Your task to perform on an android device: Go to privacy settings Image 0: 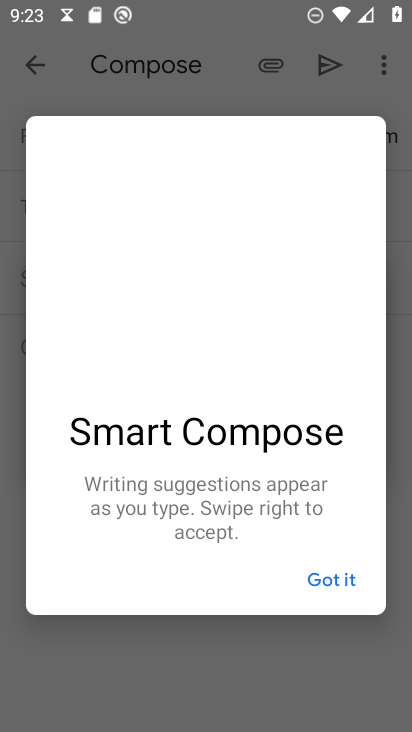
Step 0: press home button
Your task to perform on an android device: Go to privacy settings Image 1: 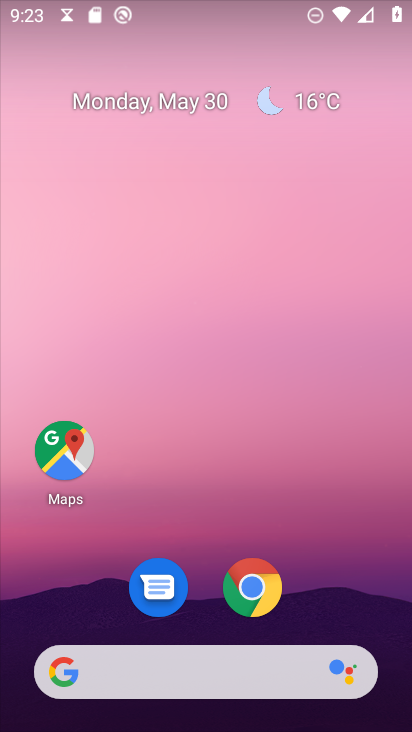
Step 1: drag from (215, 682) to (351, 105)
Your task to perform on an android device: Go to privacy settings Image 2: 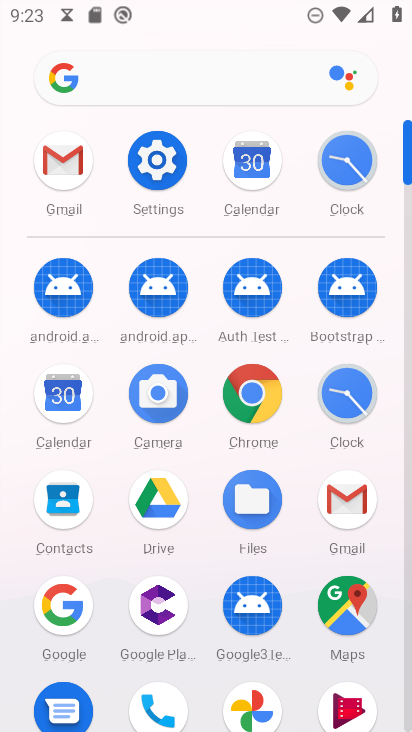
Step 2: click (157, 180)
Your task to perform on an android device: Go to privacy settings Image 3: 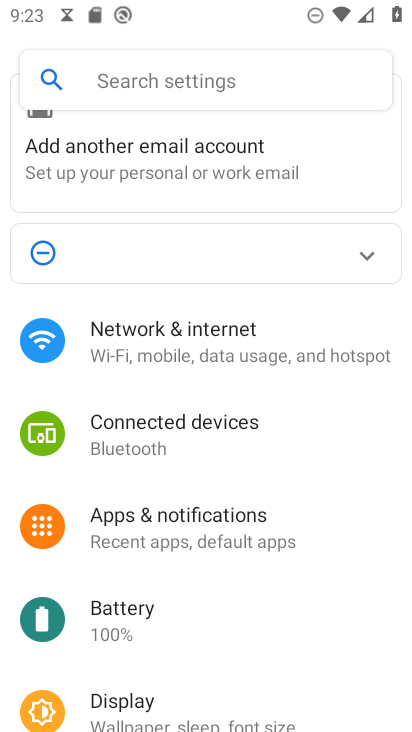
Step 3: drag from (367, 331) to (395, 251)
Your task to perform on an android device: Go to privacy settings Image 4: 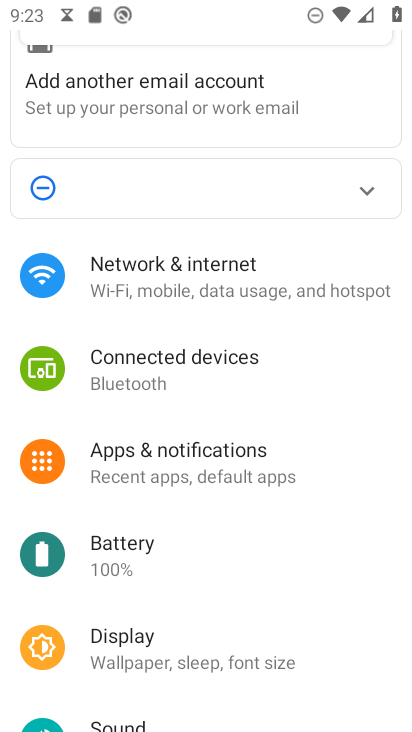
Step 4: drag from (195, 633) to (315, 122)
Your task to perform on an android device: Go to privacy settings Image 5: 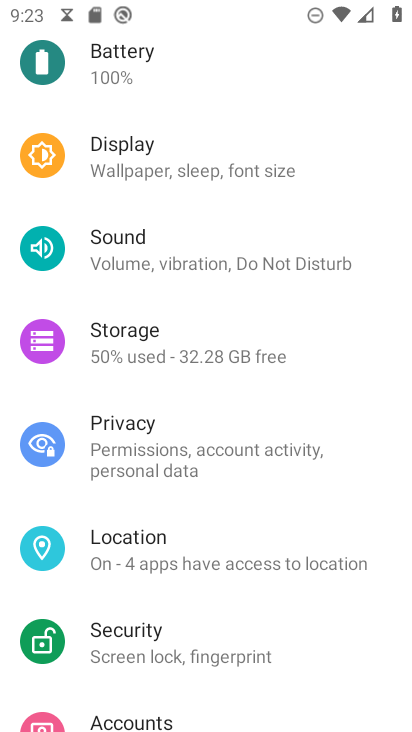
Step 5: click (137, 449)
Your task to perform on an android device: Go to privacy settings Image 6: 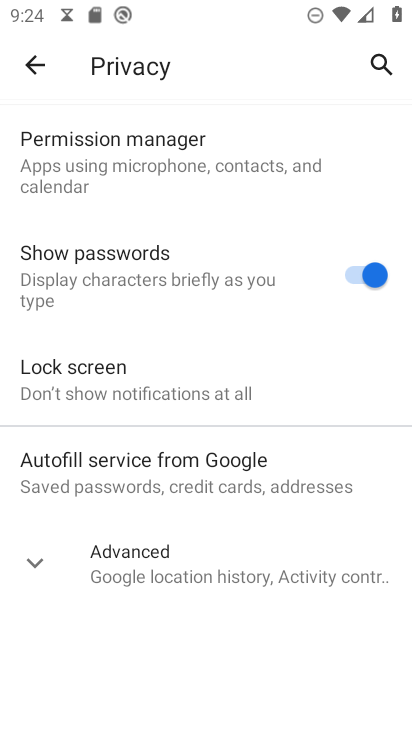
Step 6: task complete